Your task to perform on an android device: toggle javascript in the chrome app Image 0: 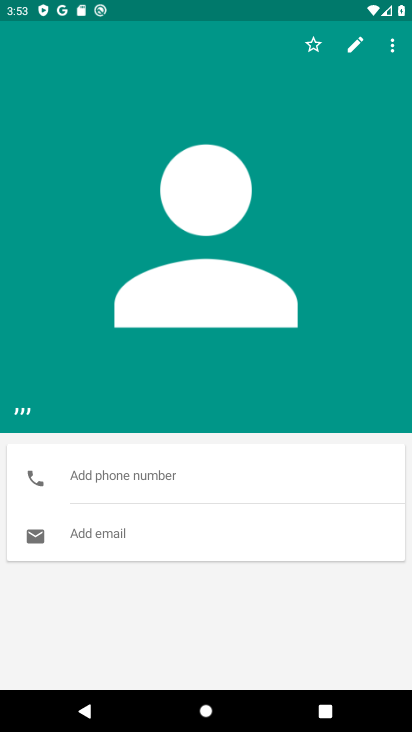
Step 0: press home button
Your task to perform on an android device: toggle javascript in the chrome app Image 1: 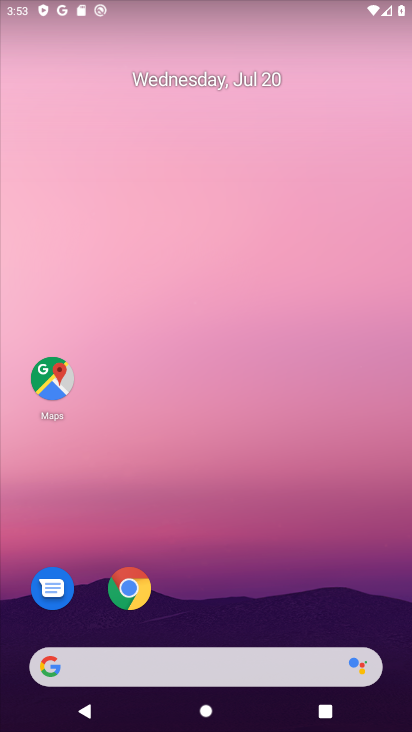
Step 1: click (137, 580)
Your task to perform on an android device: toggle javascript in the chrome app Image 2: 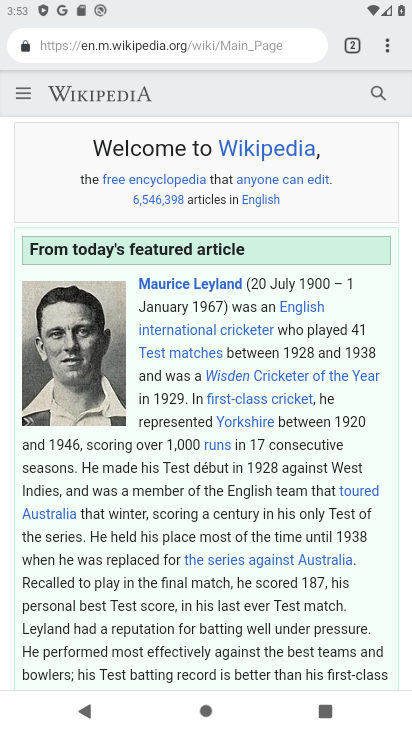
Step 2: click (391, 53)
Your task to perform on an android device: toggle javascript in the chrome app Image 3: 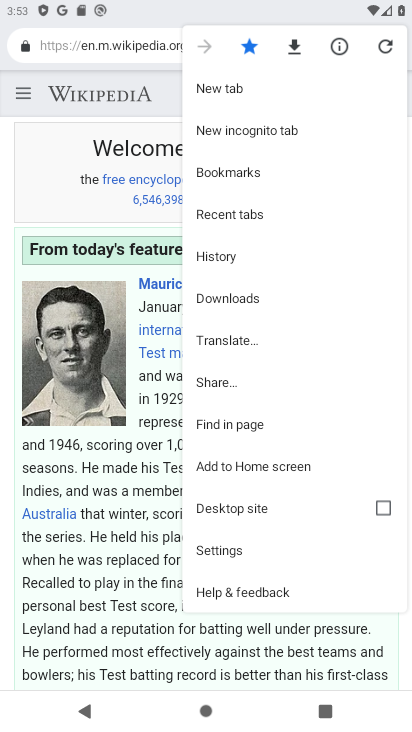
Step 3: click (237, 557)
Your task to perform on an android device: toggle javascript in the chrome app Image 4: 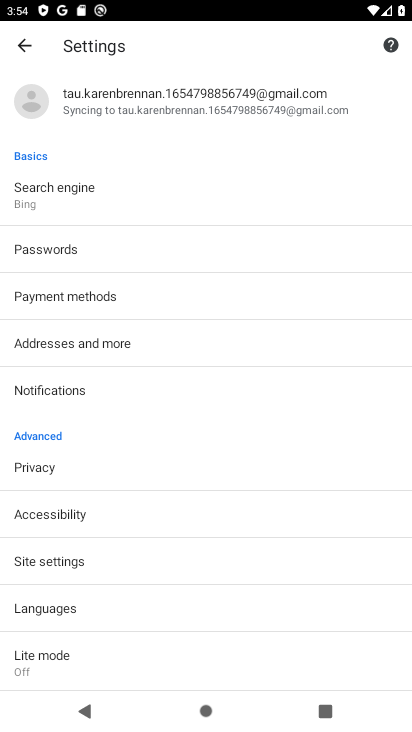
Step 4: click (237, 557)
Your task to perform on an android device: toggle javascript in the chrome app Image 5: 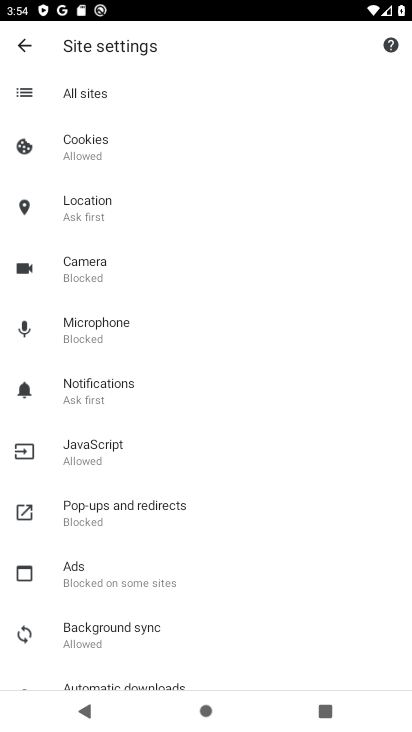
Step 5: click (119, 462)
Your task to perform on an android device: toggle javascript in the chrome app Image 6: 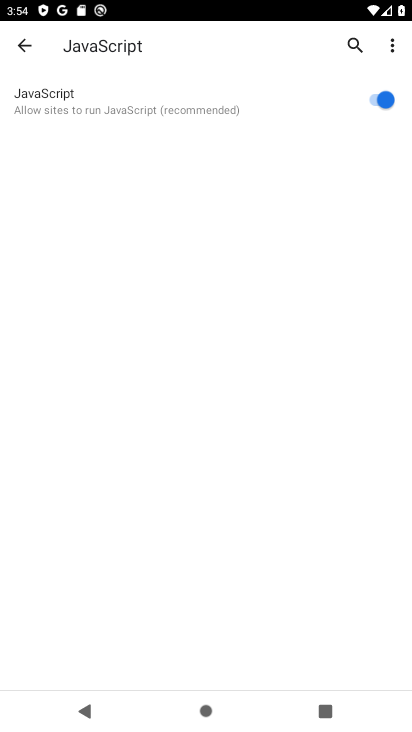
Step 6: click (378, 97)
Your task to perform on an android device: toggle javascript in the chrome app Image 7: 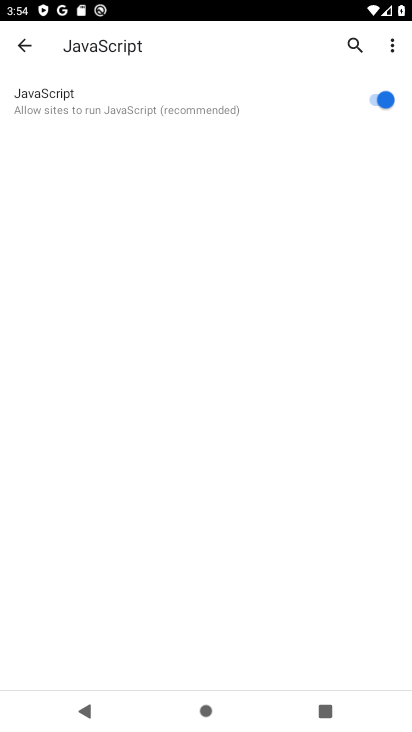
Step 7: click (378, 97)
Your task to perform on an android device: toggle javascript in the chrome app Image 8: 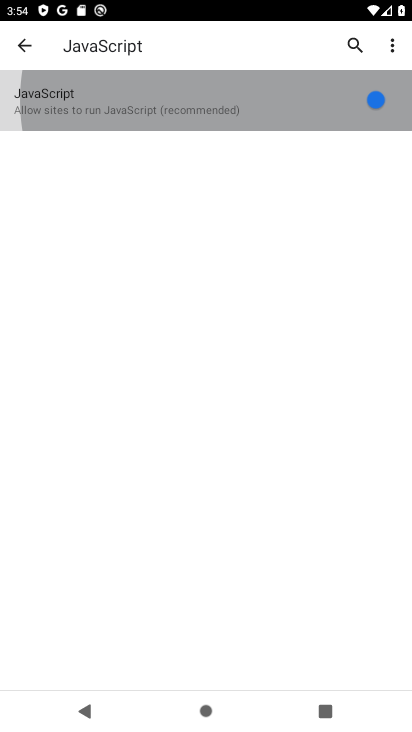
Step 8: click (378, 97)
Your task to perform on an android device: toggle javascript in the chrome app Image 9: 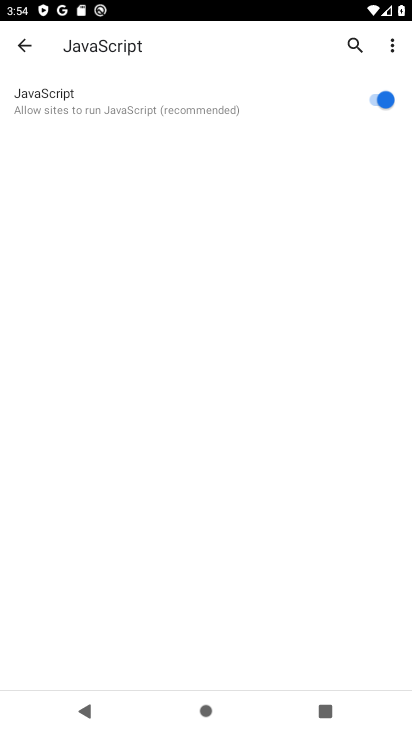
Step 9: click (378, 97)
Your task to perform on an android device: toggle javascript in the chrome app Image 10: 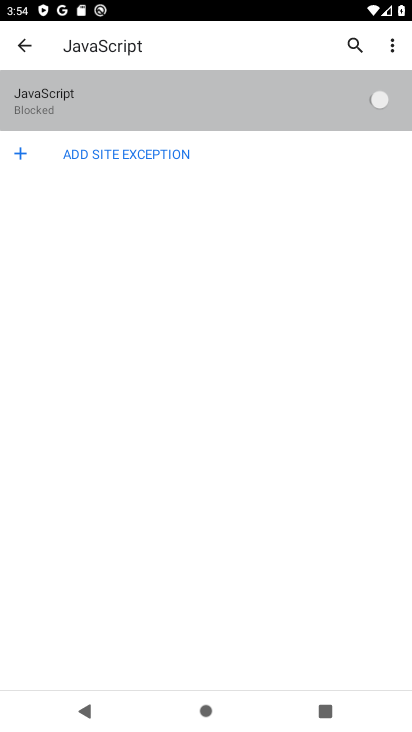
Step 10: click (378, 97)
Your task to perform on an android device: toggle javascript in the chrome app Image 11: 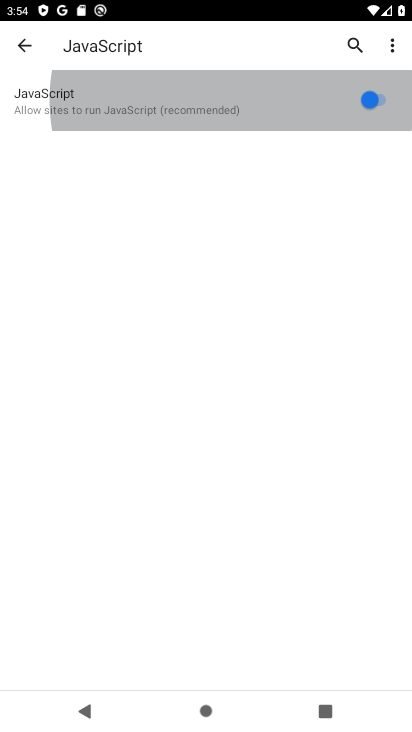
Step 11: click (378, 97)
Your task to perform on an android device: toggle javascript in the chrome app Image 12: 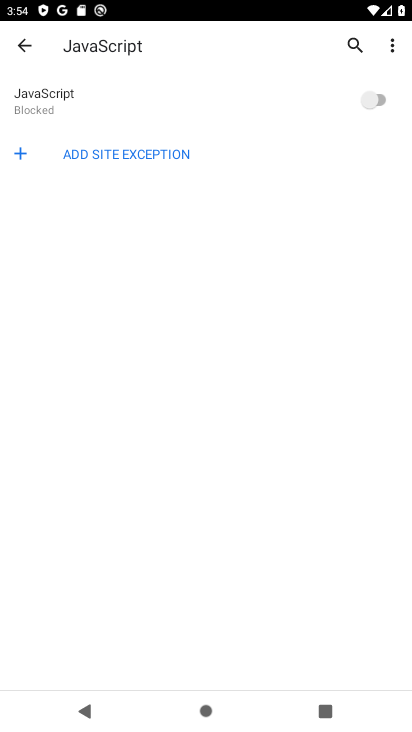
Step 12: task complete